Your task to perform on an android device: change alarm snooze length Image 0: 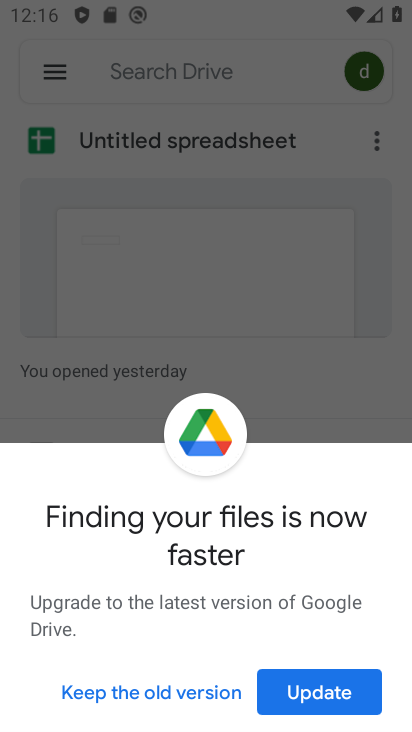
Step 0: press home button
Your task to perform on an android device: change alarm snooze length Image 1: 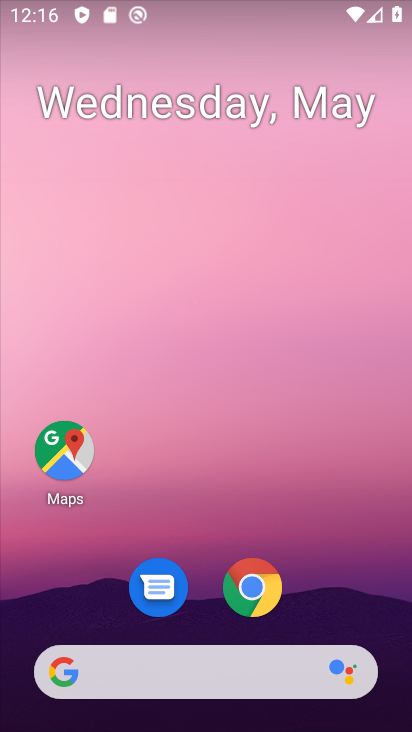
Step 1: drag from (87, 641) to (168, 203)
Your task to perform on an android device: change alarm snooze length Image 2: 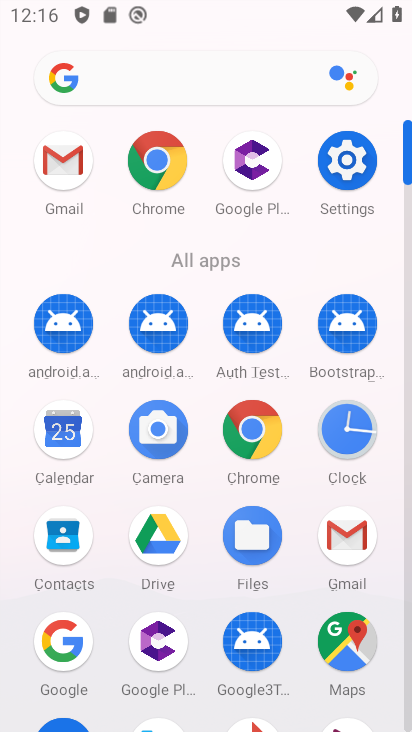
Step 2: click (360, 419)
Your task to perform on an android device: change alarm snooze length Image 3: 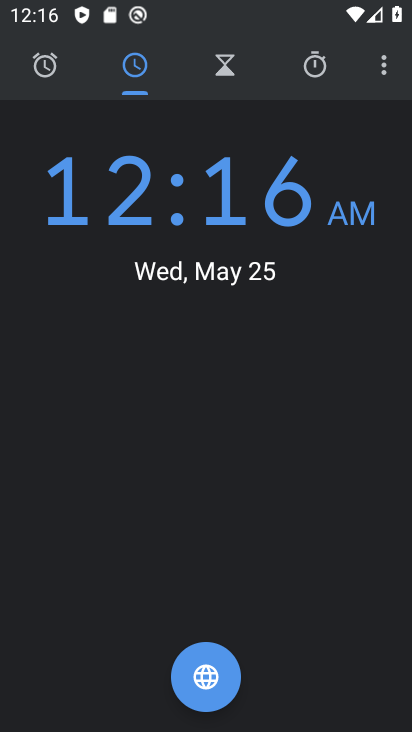
Step 3: click (373, 75)
Your task to perform on an android device: change alarm snooze length Image 4: 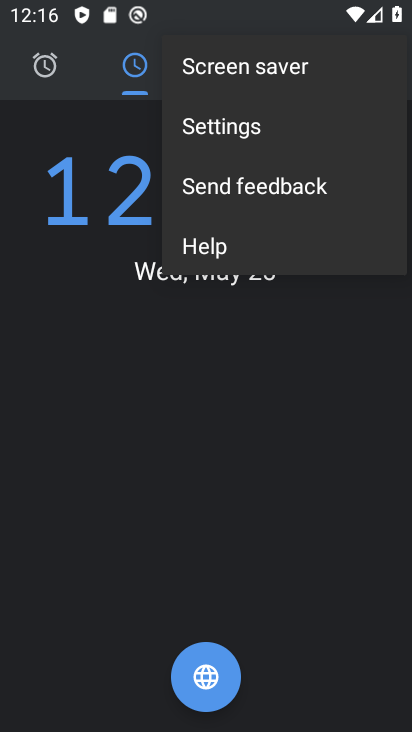
Step 4: click (308, 123)
Your task to perform on an android device: change alarm snooze length Image 5: 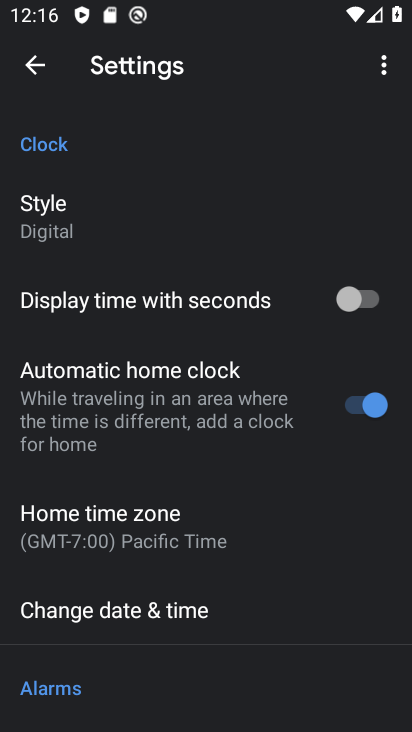
Step 5: drag from (181, 517) to (262, 173)
Your task to perform on an android device: change alarm snooze length Image 6: 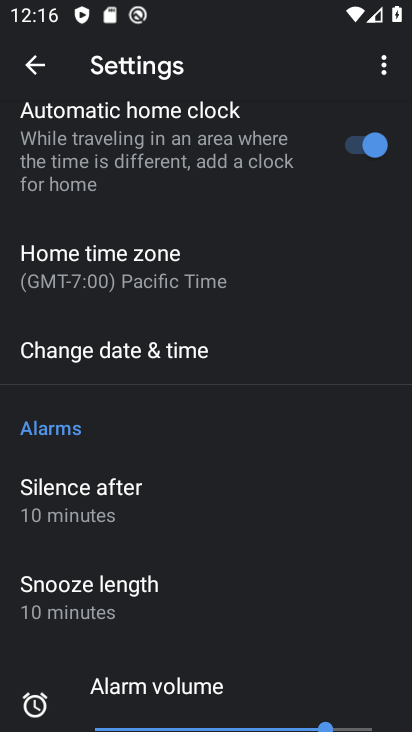
Step 6: click (140, 596)
Your task to perform on an android device: change alarm snooze length Image 7: 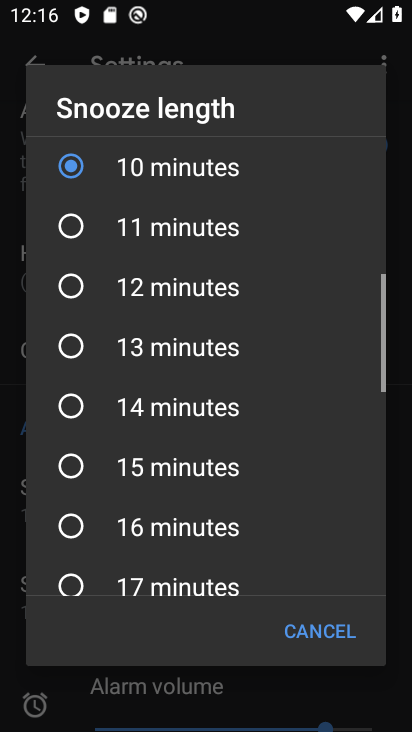
Step 7: click (155, 482)
Your task to perform on an android device: change alarm snooze length Image 8: 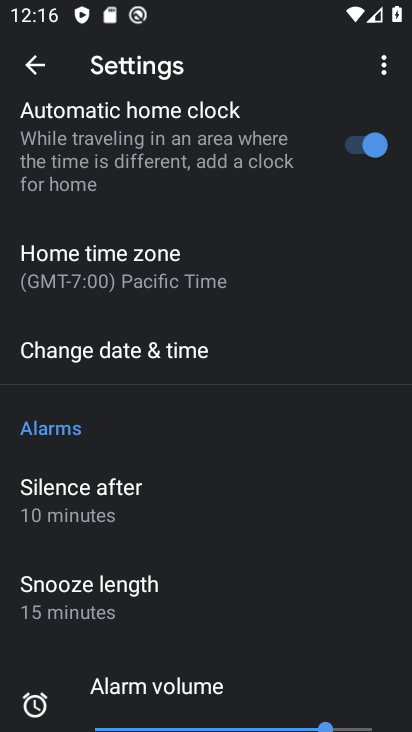
Step 8: task complete